Your task to perform on an android device: uninstall "Google Pay: Save, Pay, Manage" Image 0: 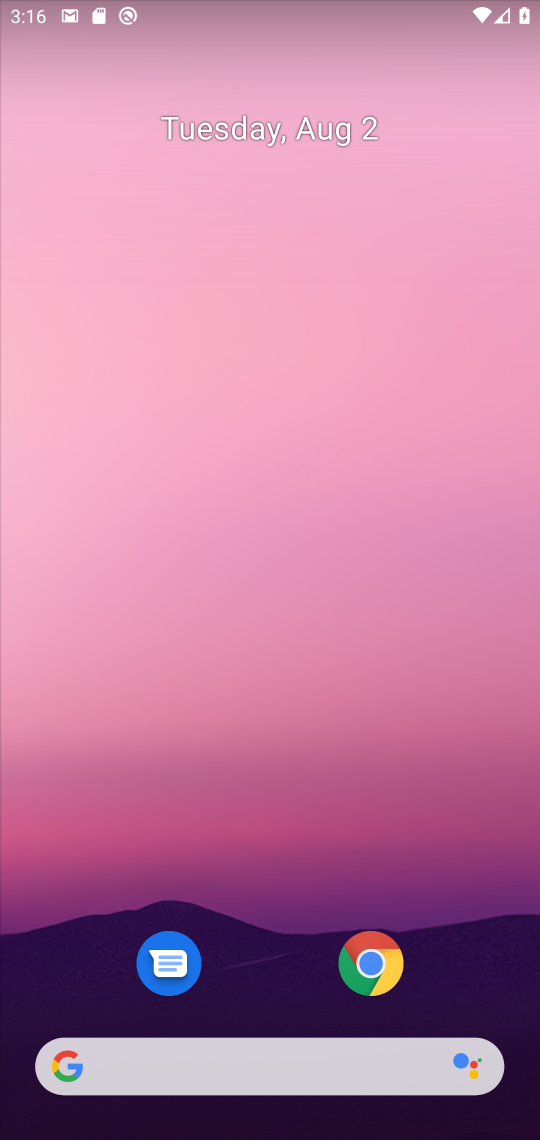
Step 0: drag from (237, 935) to (240, 111)
Your task to perform on an android device: uninstall "Google Pay: Save, Pay, Manage" Image 1: 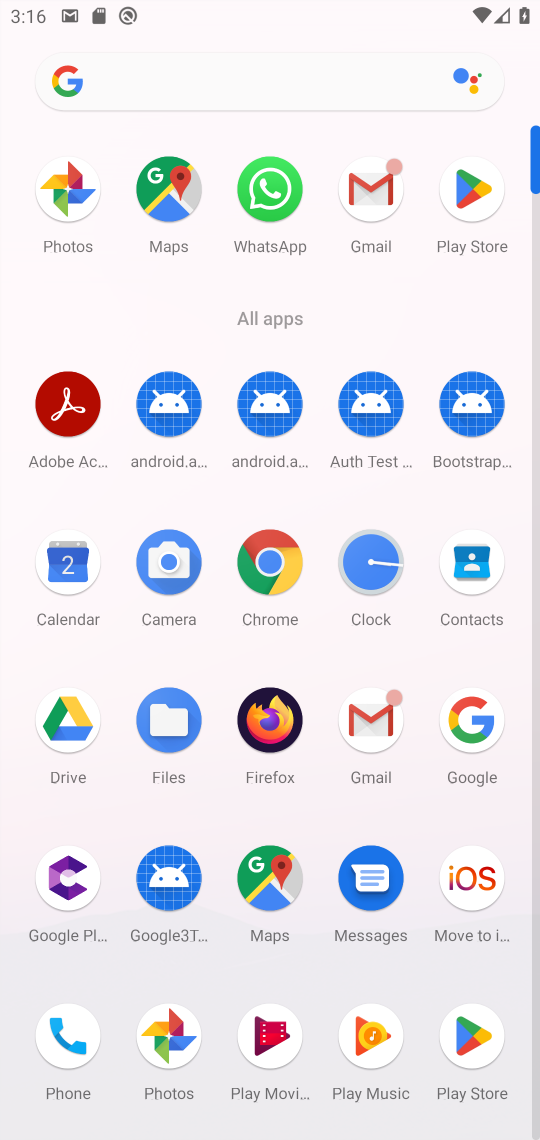
Step 1: click (464, 181)
Your task to perform on an android device: uninstall "Google Pay: Save, Pay, Manage" Image 2: 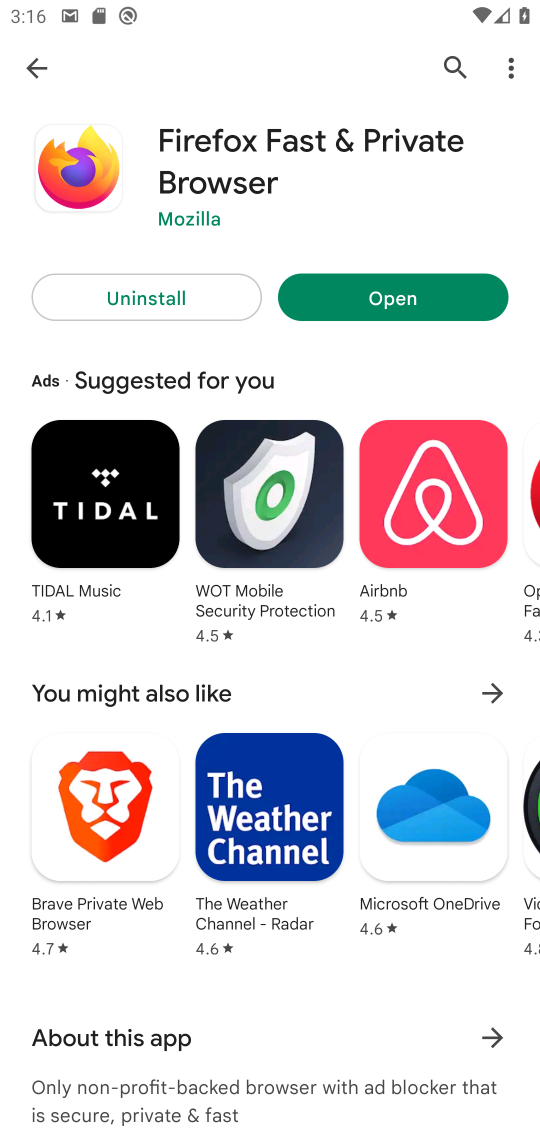
Step 2: click (449, 65)
Your task to perform on an android device: uninstall "Google Pay: Save, Pay, Manage" Image 3: 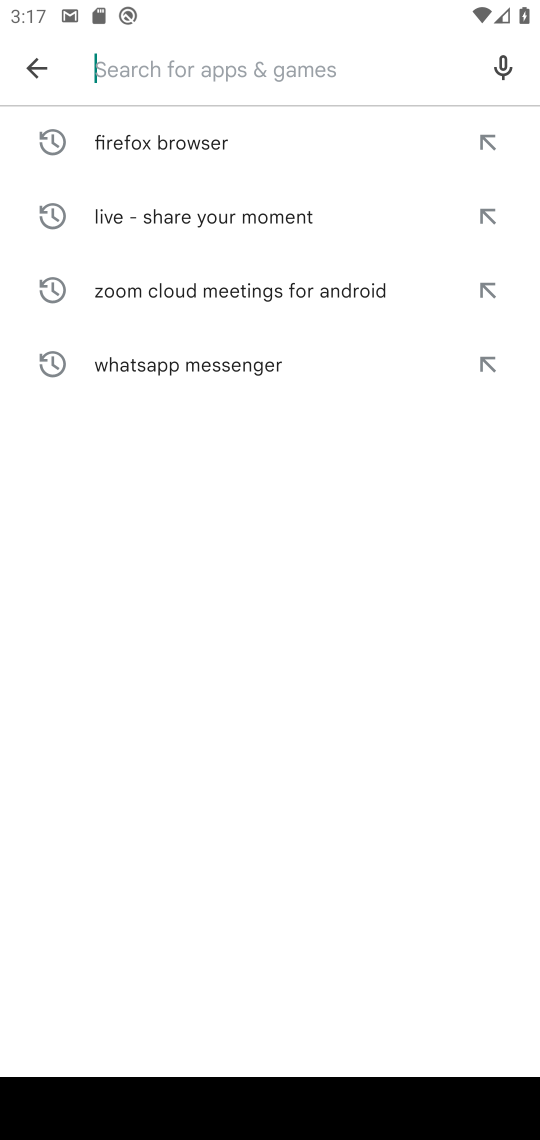
Step 3: type "google pay: save, pay, manage"
Your task to perform on an android device: uninstall "Google Pay: Save, Pay, Manage" Image 4: 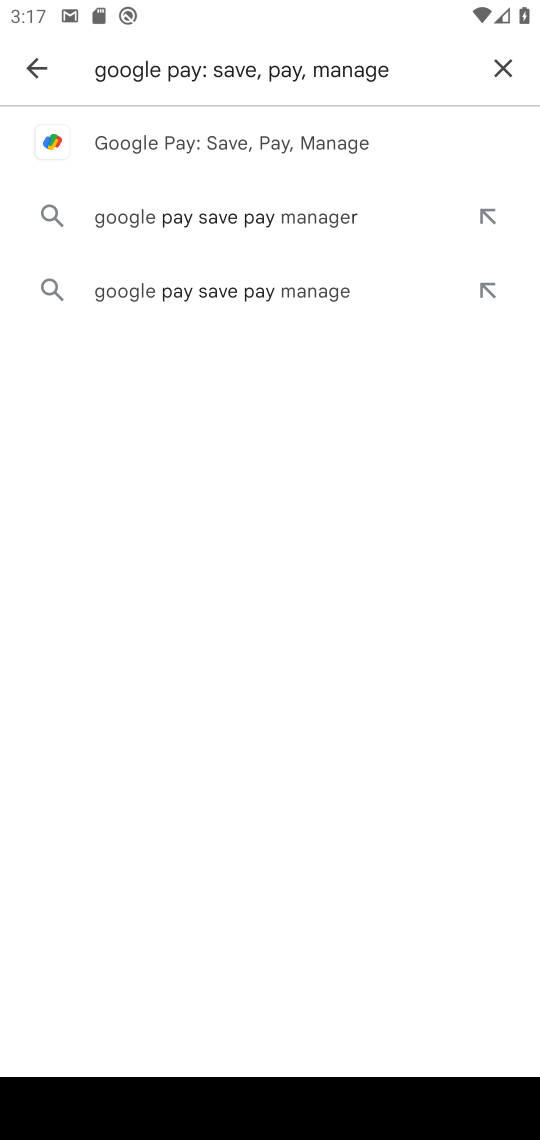
Step 4: click (308, 156)
Your task to perform on an android device: uninstall "Google Pay: Save, Pay, Manage" Image 5: 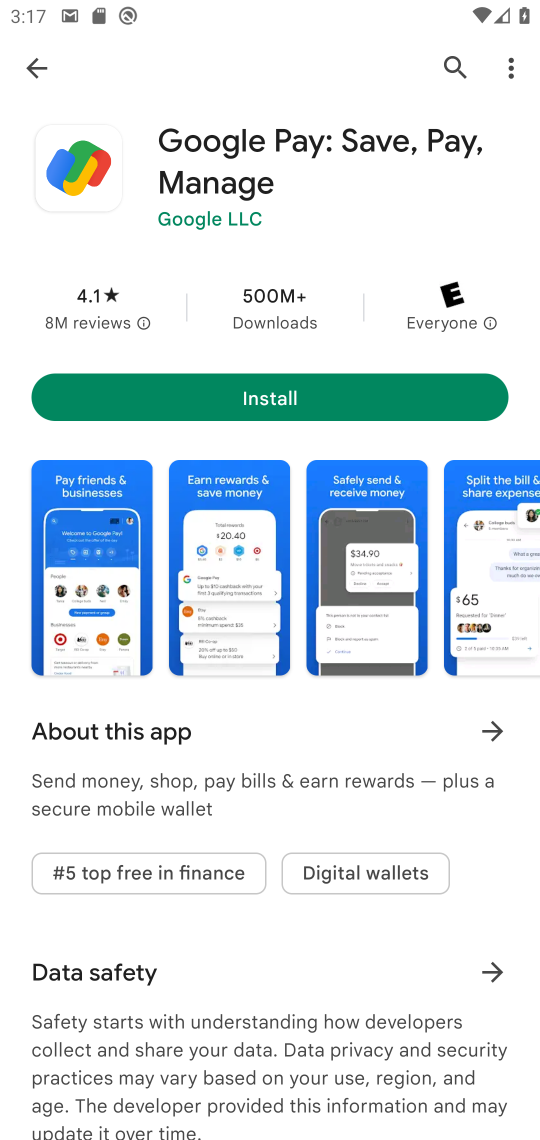
Step 5: task complete